Your task to perform on an android device: Open Android settings Image 0: 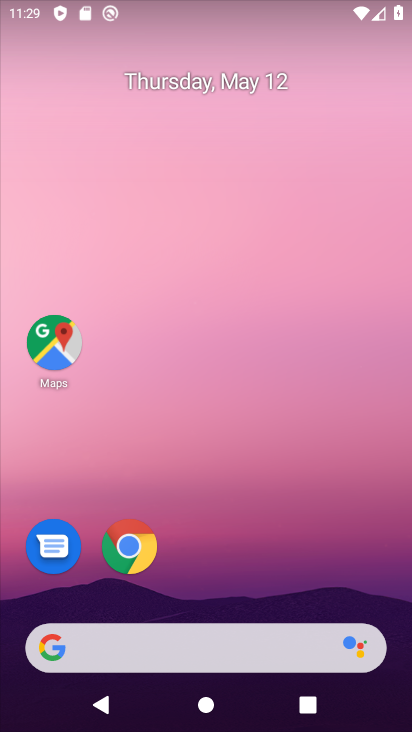
Step 0: drag from (228, 716) to (252, 278)
Your task to perform on an android device: Open Android settings Image 1: 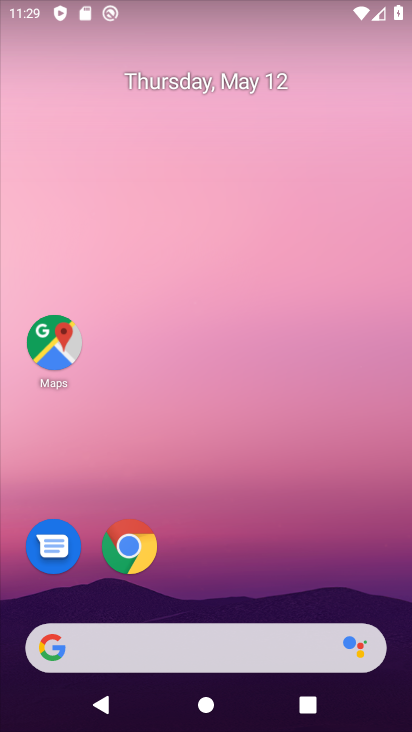
Step 1: drag from (217, 717) to (224, 197)
Your task to perform on an android device: Open Android settings Image 2: 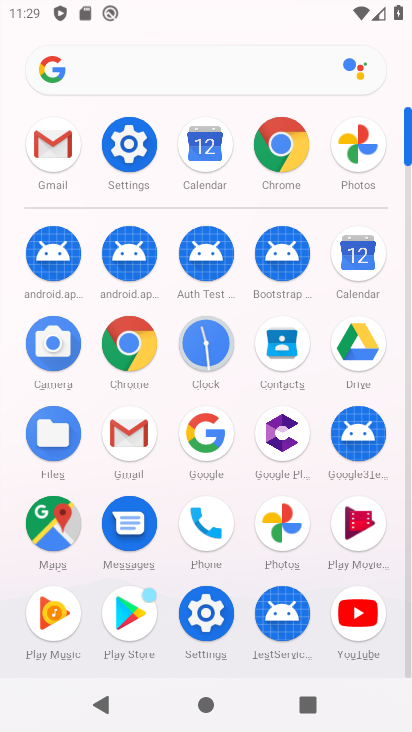
Step 2: click (209, 617)
Your task to perform on an android device: Open Android settings Image 3: 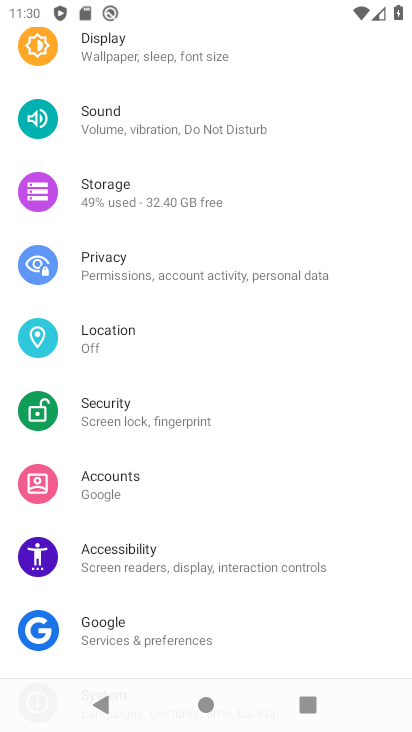
Step 3: task complete